Your task to perform on an android device: toggle priority inbox in the gmail app Image 0: 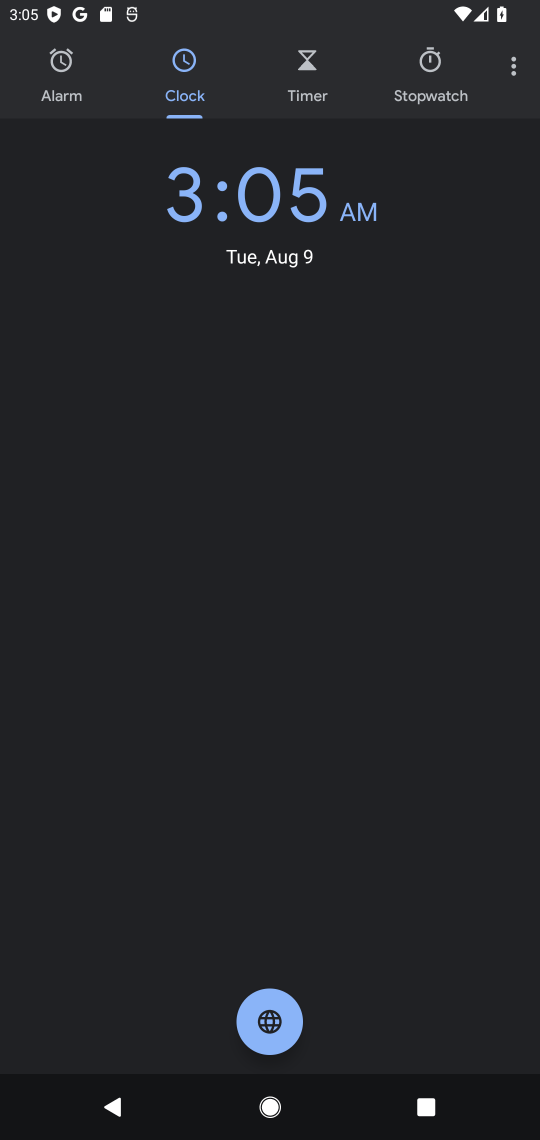
Step 0: press home button
Your task to perform on an android device: toggle priority inbox in the gmail app Image 1: 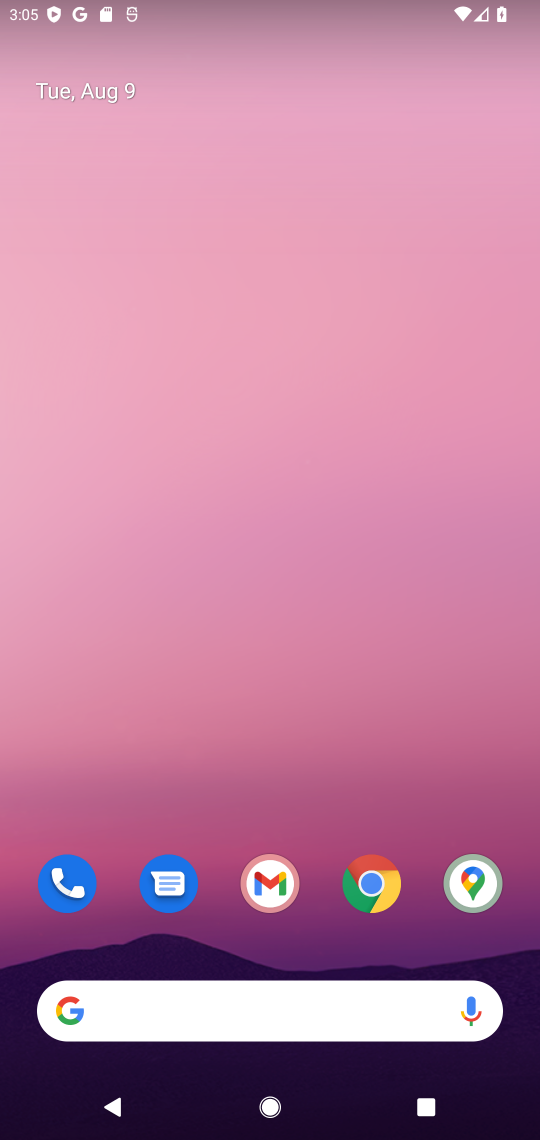
Step 1: click (272, 888)
Your task to perform on an android device: toggle priority inbox in the gmail app Image 2: 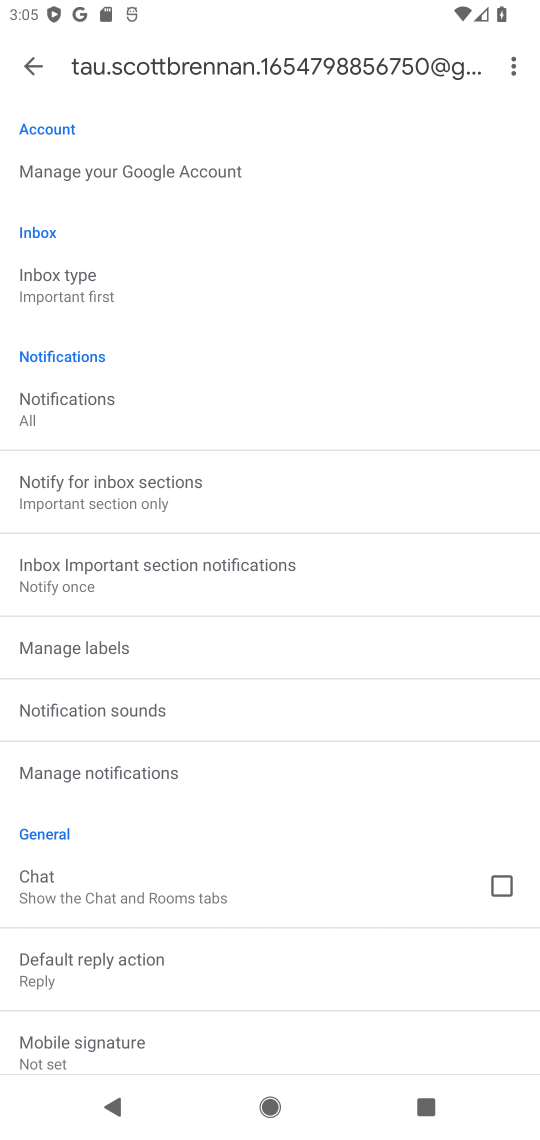
Step 2: click (68, 287)
Your task to perform on an android device: toggle priority inbox in the gmail app Image 3: 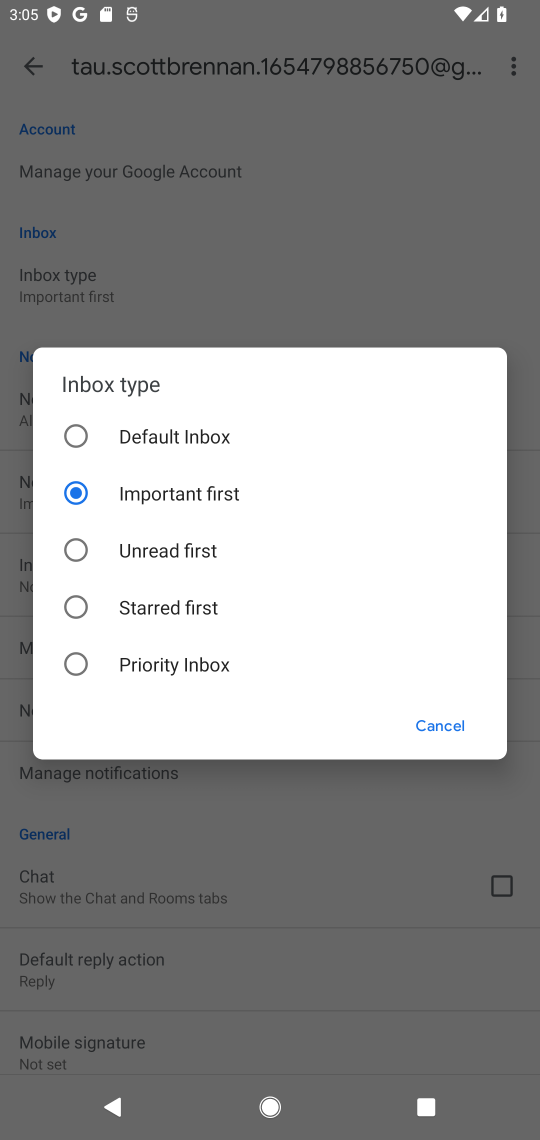
Step 3: click (81, 663)
Your task to perform on an android device: toggle priority inbox in the gmail app Image 4: 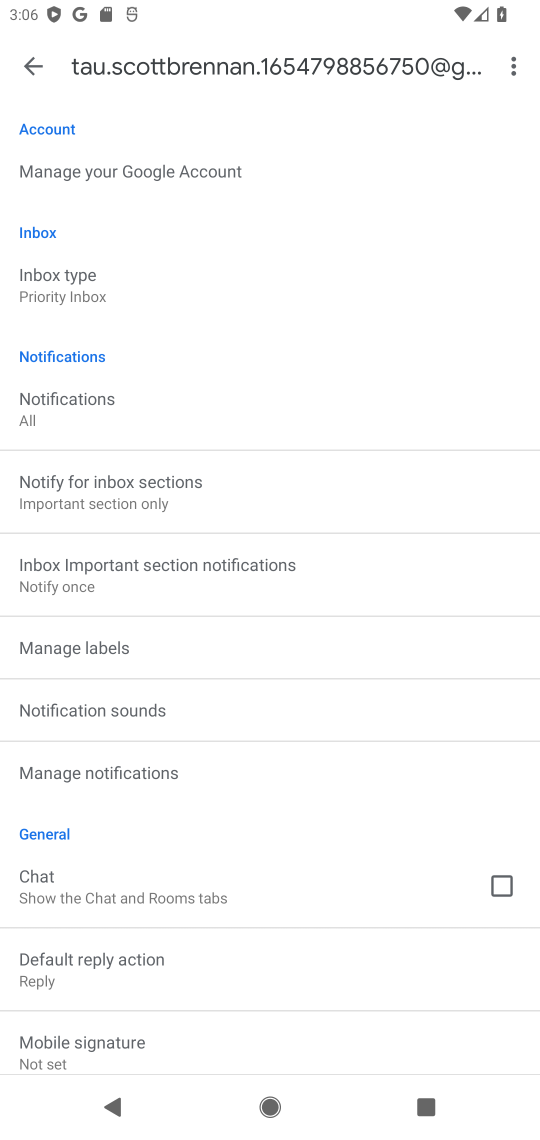
Step 4: task complete